Your task to perform on an android device: toggle airplane mode Image 0: 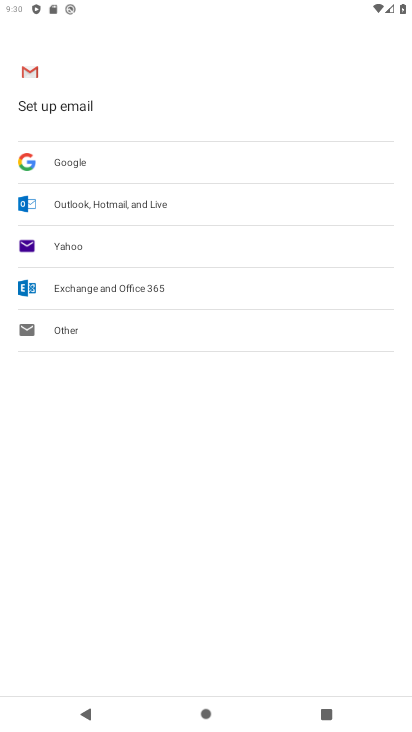
Step 0: press home button
Your task to perform on an android device: toggle airplane mode Image 1: 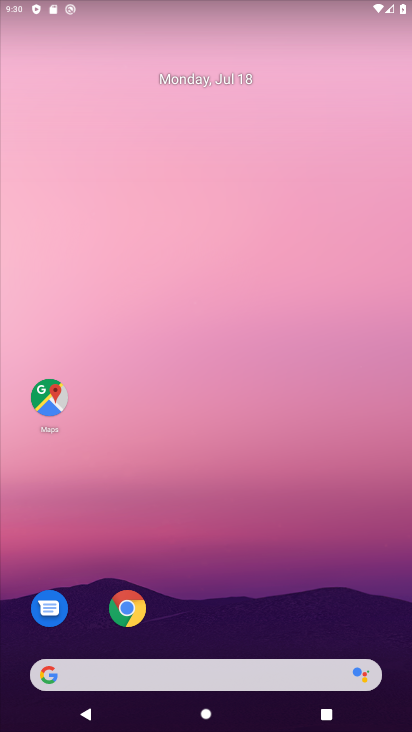
Step 1: drag from (236, 604) to (251, 6)
Your task to perform on an android device: toggle airplane mode Image 2: 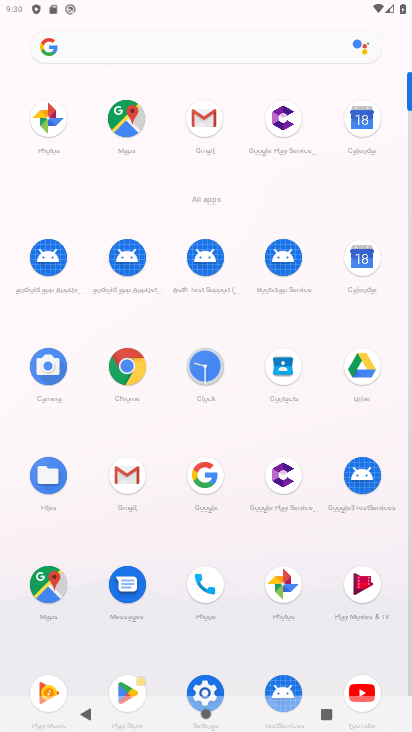
Step 2: click (207, 682)
Your task to perform on an android device: toggle airplane mode Image 3: 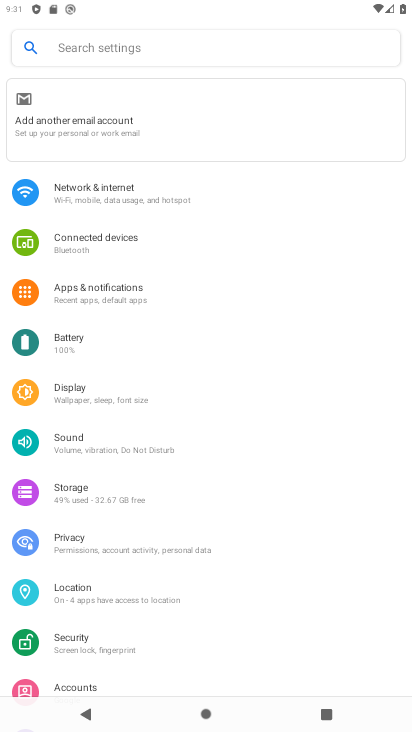
Step 3: click (172, 203)
Your task to perform on an android device: toggle airplane mode Image 4: 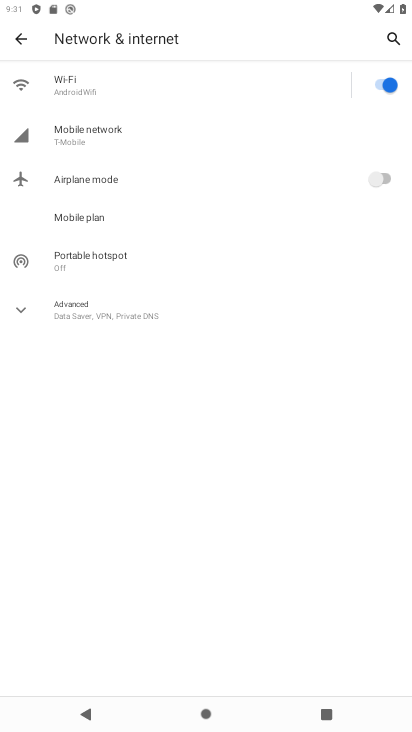
Step 4: click (389, 173)
Your task to perform on an android device: toggle airplane mode Image 5: 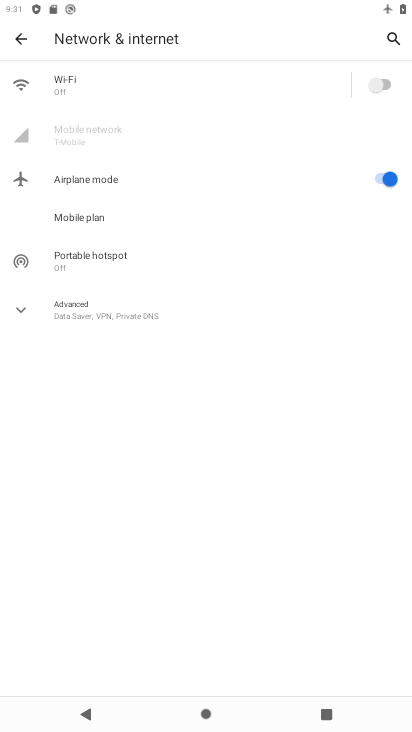
Step 5: task complete